Your task to perform on an android device: Open Google Chrome and open the bookmarks view Image 0: 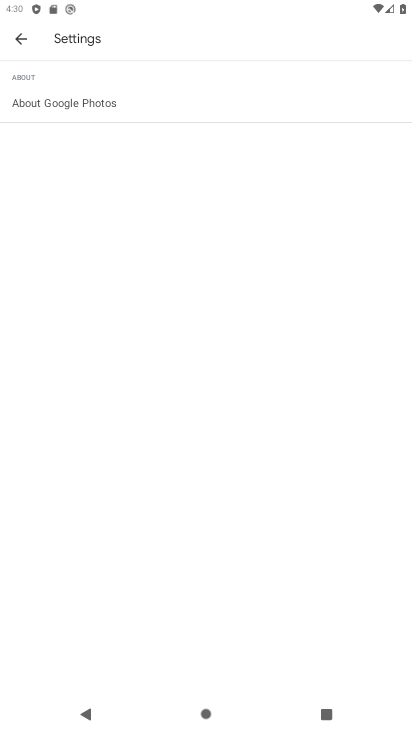
Step 0: press home button
Your task to perform on an android device: Open Google Chrome and open the bookmarks view Image 1: 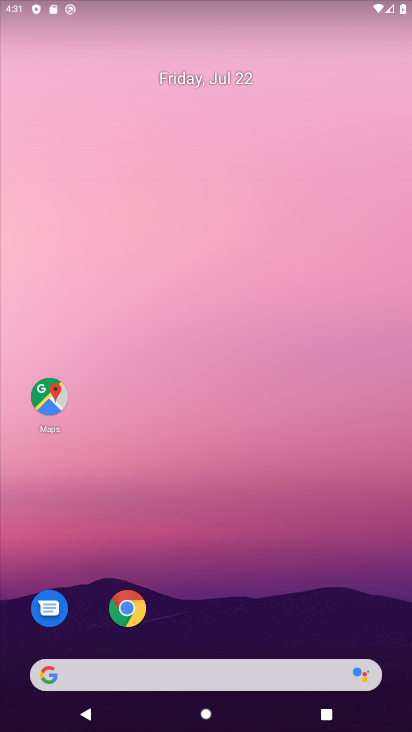
Step 1: click (114, 611)
Your task to perform on an android device: Open Google Chrome and open the bookmarks view Image 2: 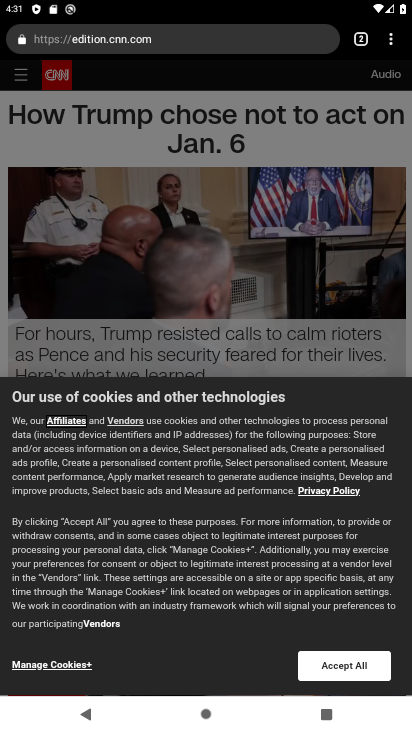
Step 2: click (396, 48)
Your task to perform on an android device: Open Google Chrome and open the bookmarks view Image 3: 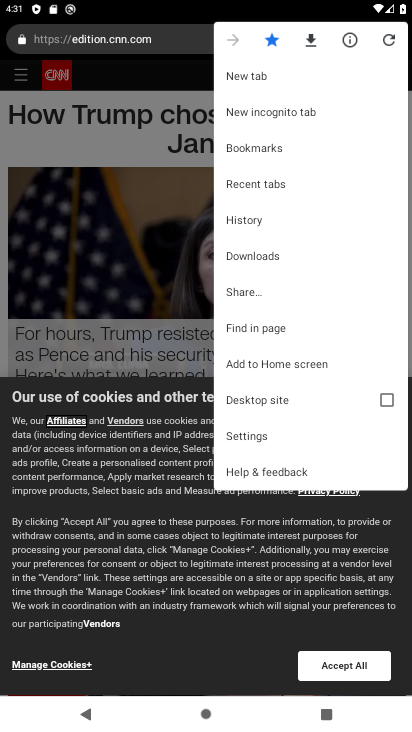
Step 3: click (284, 144)
Your task to perform on an android device: Open Google Chrome and open the bookmarks view Image 4: 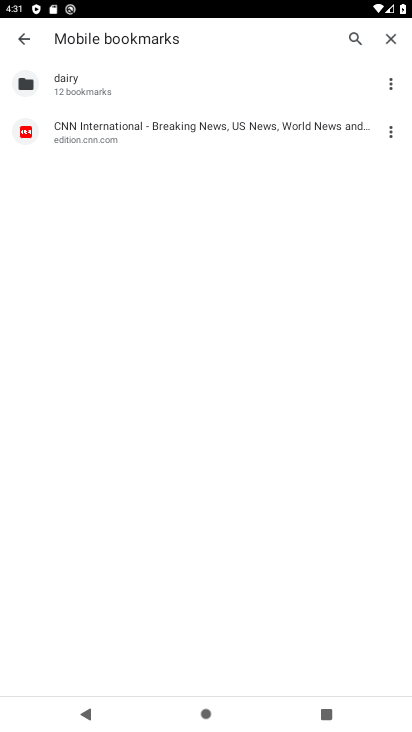
Step 4: task complete